Your task to perform on an android device: Set the phone to "Do not disturb". Image 0: 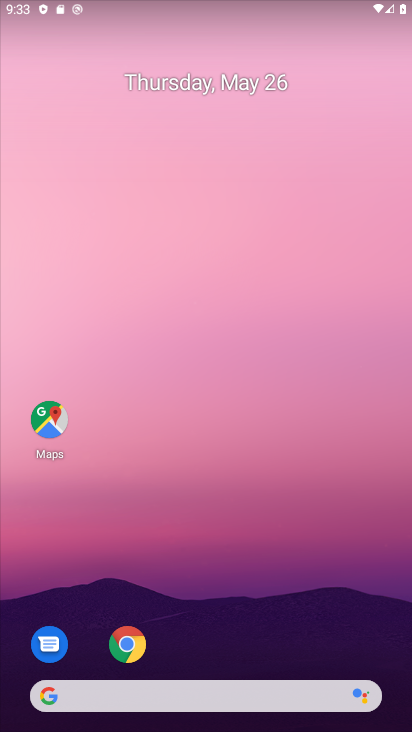
Step 0: drag from (187, 700) to (286, 178)
Your task to perform on an android device: Set the phone to "Do not disturb". Image 1: 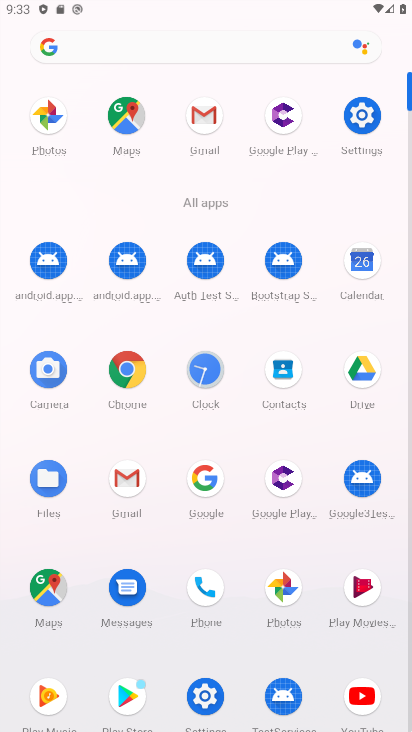
Step 1: click (368, 120)
Your task to perform on an android device: Set the phone to "Do not disturb". Image 2: 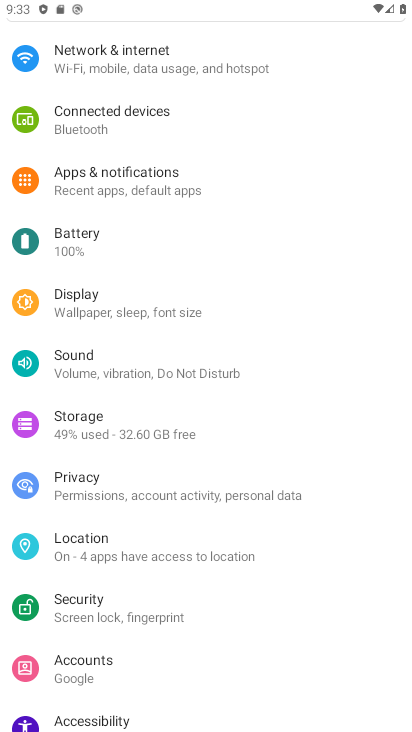
Step 2: click (235, 180)
Your task to perform on an android device: Set the phone to "Do not disturb". Image 3: 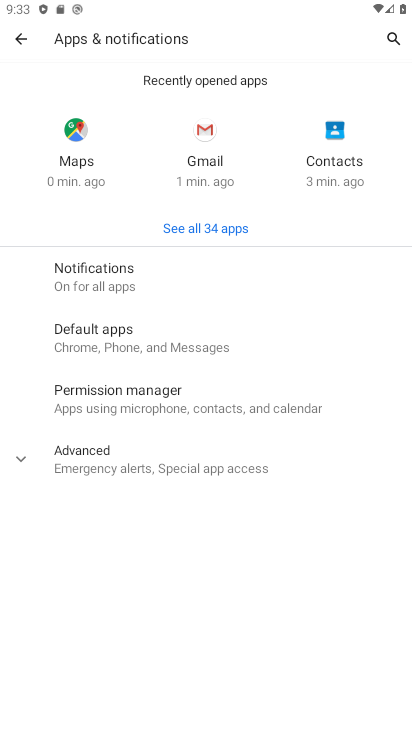
Step 3: click (197, 273)
Your task to perform on an android device: Set the phone to "Do not disturb". Image 4: 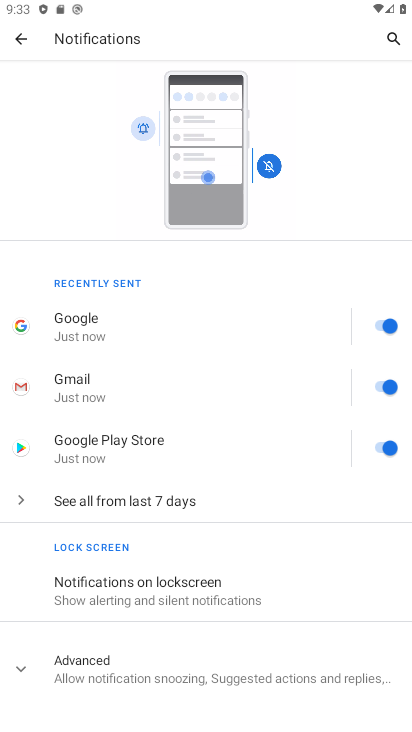
Step 4: drag from (177, 696) to (264, 274)
Your task to perform on an android device: Set the phone to "Do not disturb". Image 5: 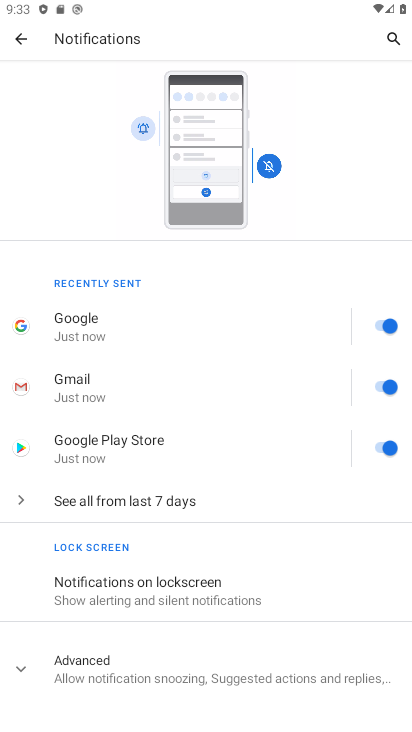
Step 5: click (170, 680)
Your task to perform on an android device: Set the phone to "Do not disturb". Image 6: 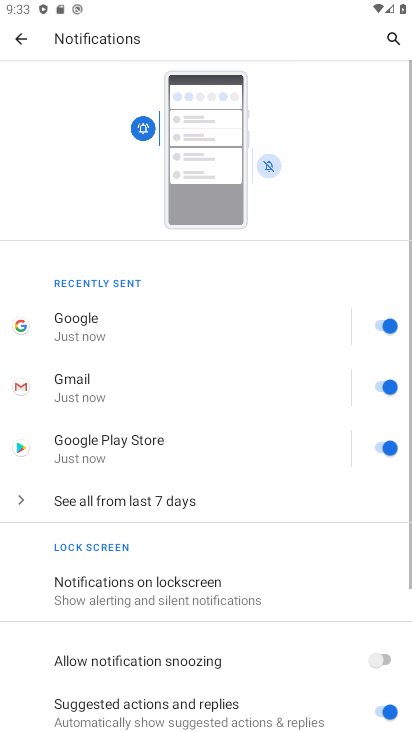
Step 6: drag from (183, 639) to (289, 212)
Your task to perform on an android device: Set the phone to "Do not disturb". Image 7: 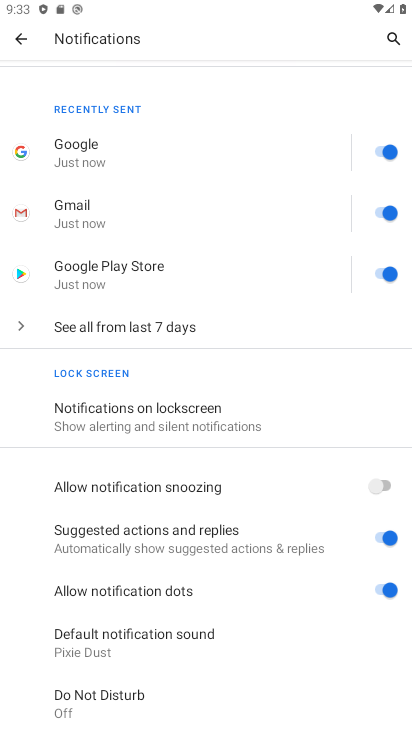
Step 7: click (160, 699)
Your task to perform on an android device: Set the phone to "Do not disturb". Image 8: 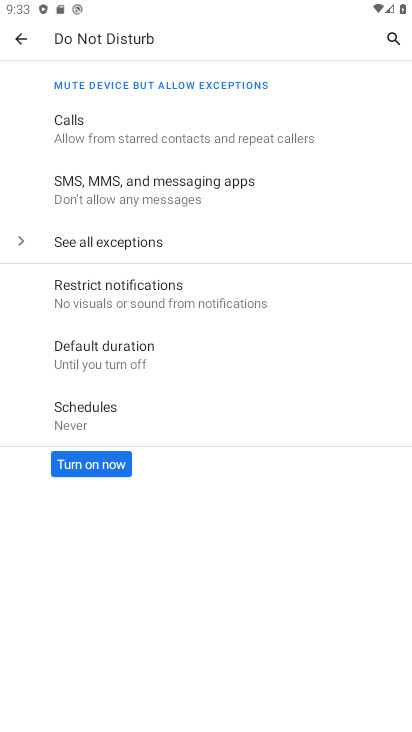
Step 8: click (55, 491)
Your task to perform on an android device: Set the phone to "Do not disturb". Image 9: 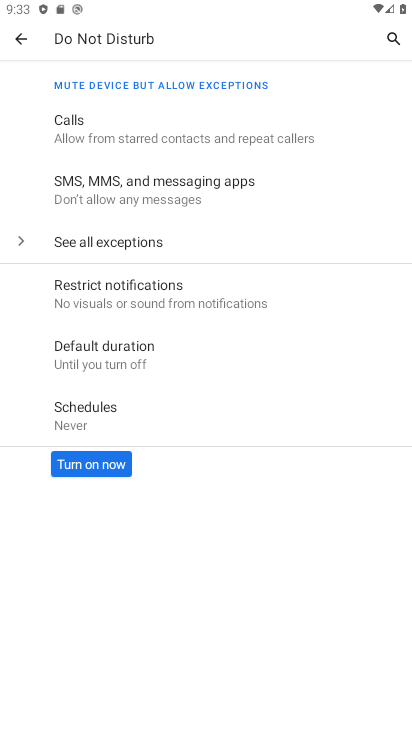
Step 9: click (80, 470)
Your task to perform on an android device: Set the phone to "Do not disturb". Image 10: 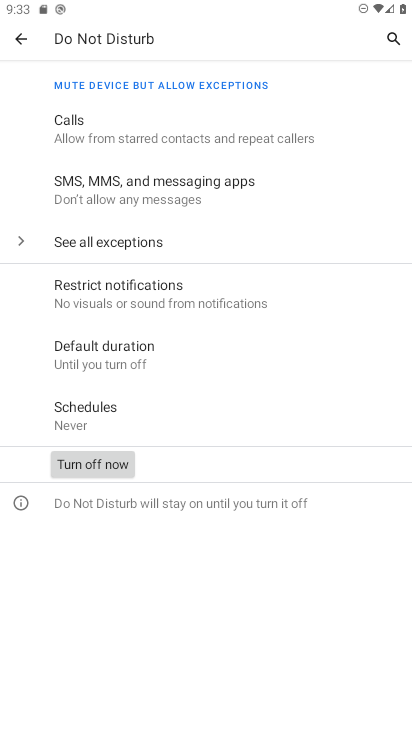
Step 10: task complete